Your task to perform on an android device: View the shopping cart on bestbuy. Image 0: 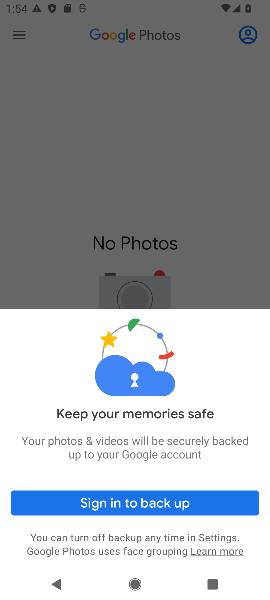
Step 0: press home button
Your task to perform on an android device: View the shopping cart on bestbuy. Image 1: 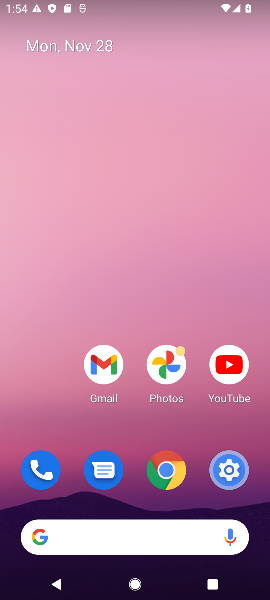
Step 1: click (134, 536)
Your task to perform on an android device: View the shopping cart on bestbuy. Image 2: 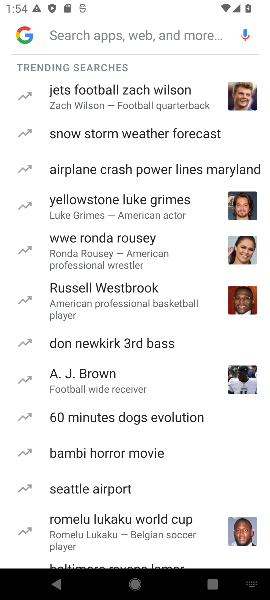
Step 2: type "bestbuy"
Your task to perform on an android device: View the shopping cart on bestbuy. Image 3: 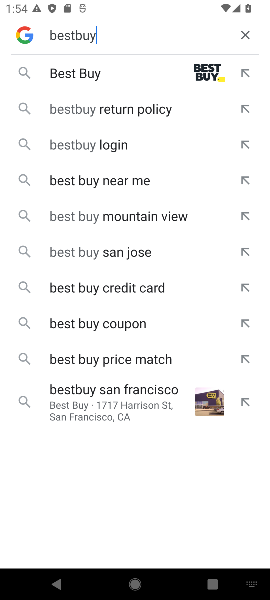
Step 3: click (95, 77)
Your task to perform on an android device: View the shopping cart on bestbuy. Image 4: 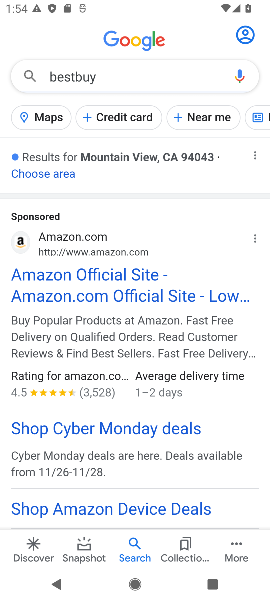
Step 4: click (60, 269)
Your task to perform on an android device: View the shopping cart on bestbuy. Image 5: 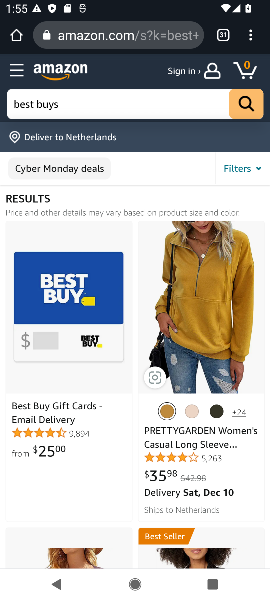
Step 5: click (251, 69)
Your task to perform on an android device: View the shopping cart on bestbuy. Image 6: 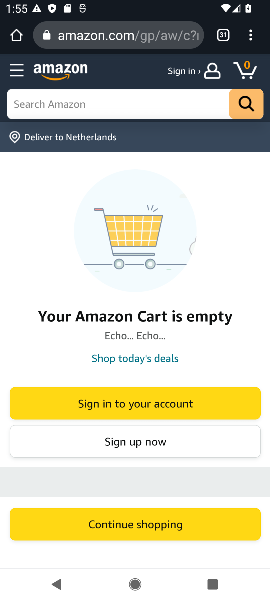
Step 6: task complete